Your task to perform on an android device: Is it going to rain today? Image 0: 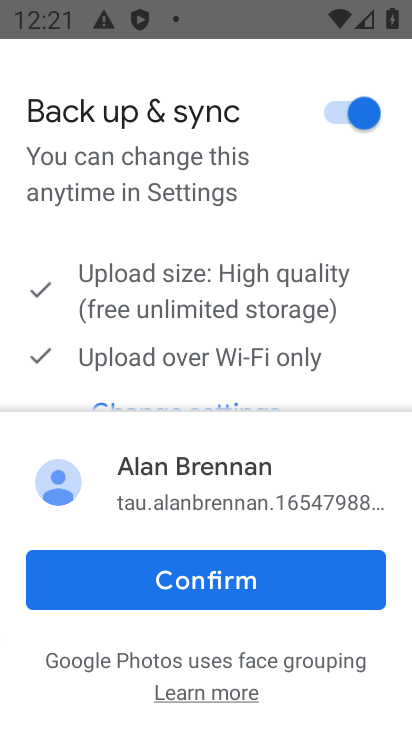
Step 0: press home button
Your task to perform on an android device: Is it going to rain today? Image 1: 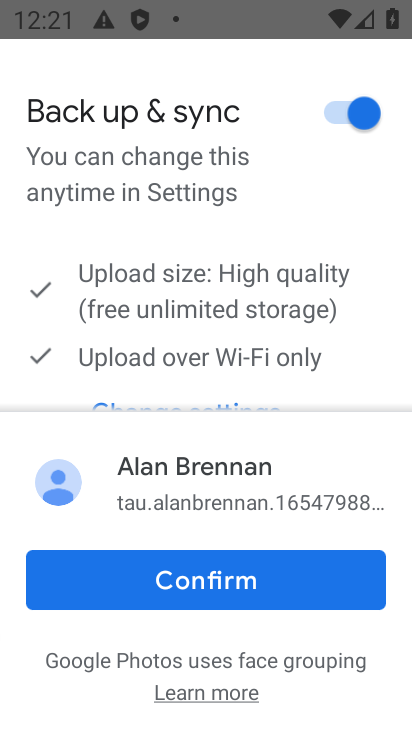
Step 1: press home button
Your task to perform on an android device: Is it going to rain today? Image 2: 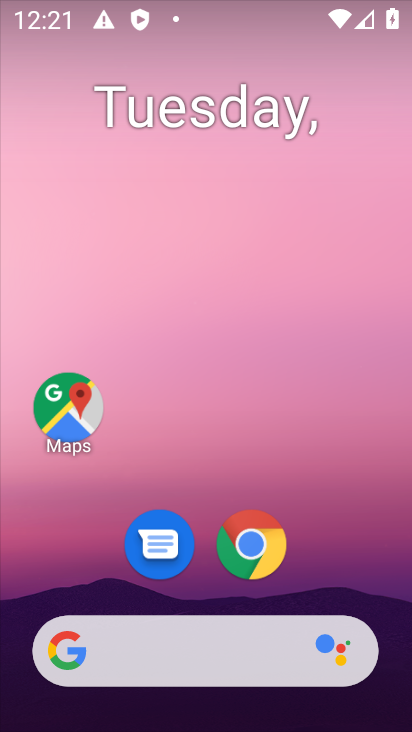
Step 2: drag from (373, 523) to (198, 115)
Your task to perform on an android device: Is it going to rain today? Image 3: 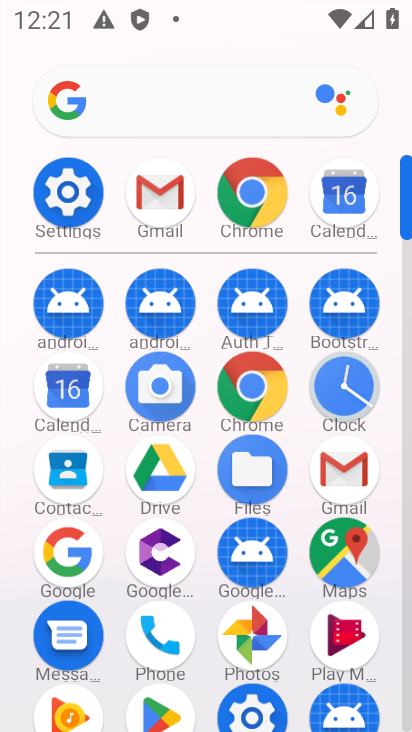
Step 3: click (255, 377)
Your task to perform on an android device: Is it going to rain today? Image 4: 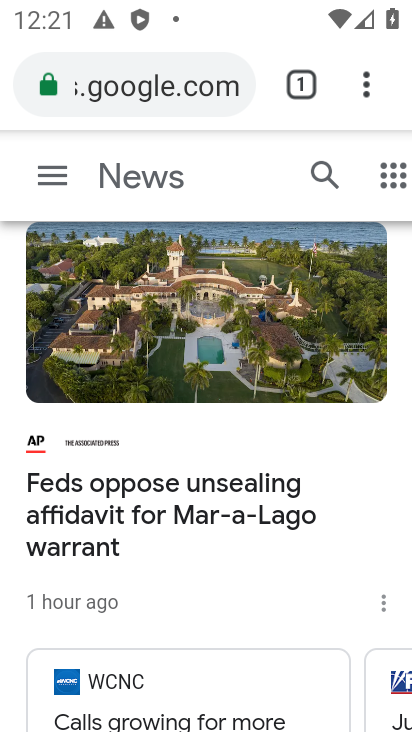
Step 4: click (193, 97)
Your task to perform on an android device: Is it going to rain today? Image 5: 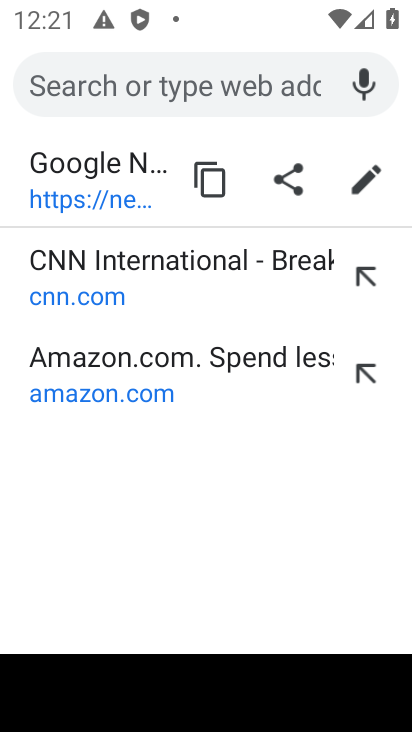
Step 5: type "we"
Your task to perform on an android device: Is it going to rain today? Image 6: 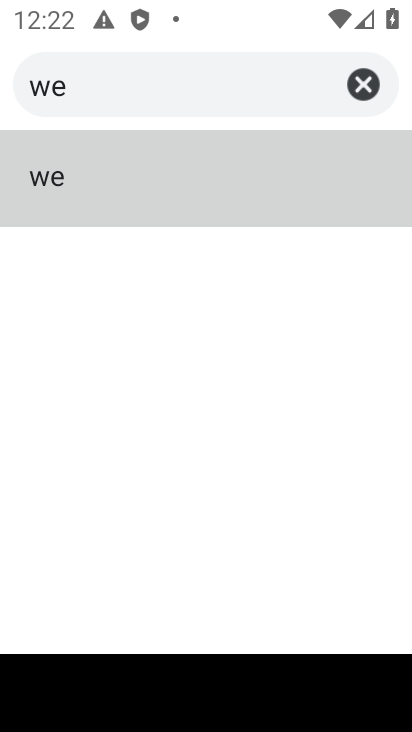
Step 6: type "ather"
Your task to perform on an android device: Is it going to rain today? Image 7: 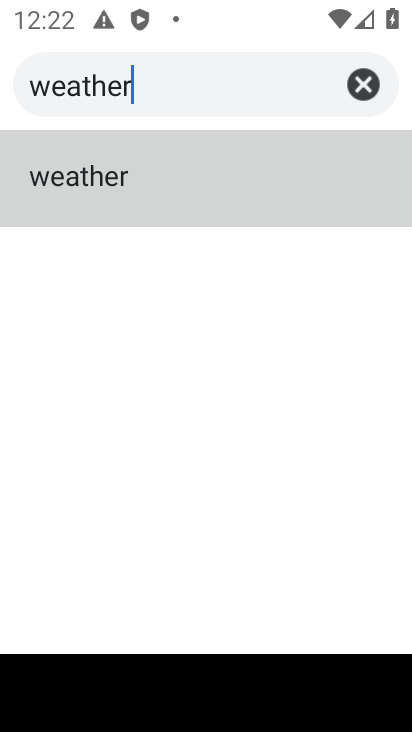
Step 7: click (109, 199)
Your task to perform on an android device: Is it going to rain today? Image 8: 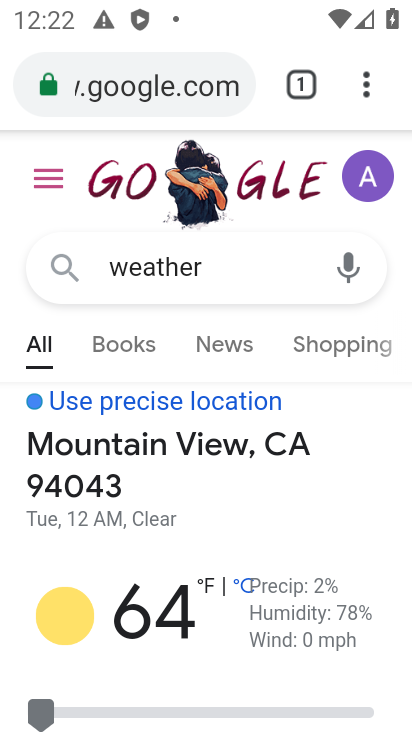
Step 8: task complete